Your task to perform on an android device: Open display settings Image 0: 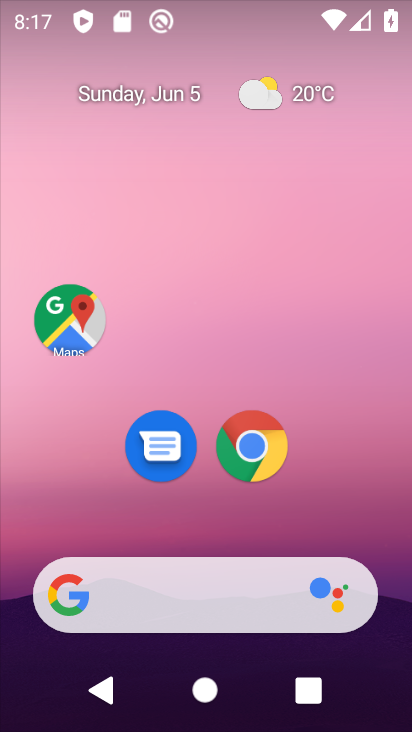
Step 0: drag from (176, 531) to (151, 124)
Your task to perform on an android device: Open display settings Image 1: 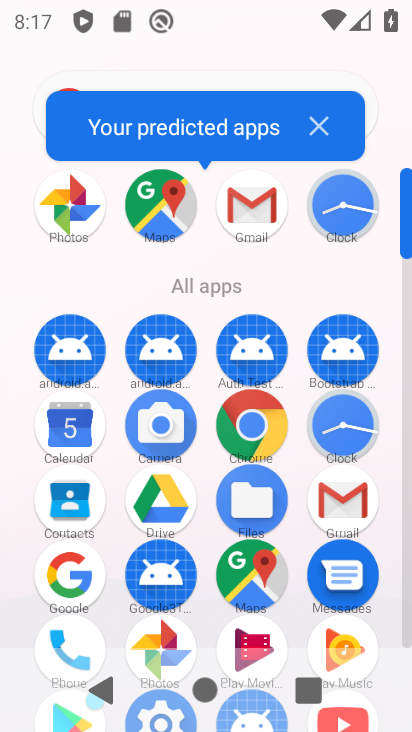
Step 1: drag from (192, 583) to (228, 299)
Your task to perform on an android device: Open display settings Image 2: 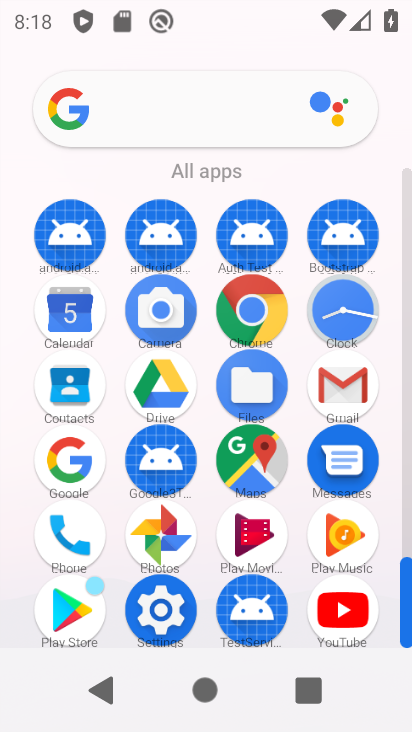
Step 2: click (169, 582)
Your task to perform on an android device: Open display settings Image 3: 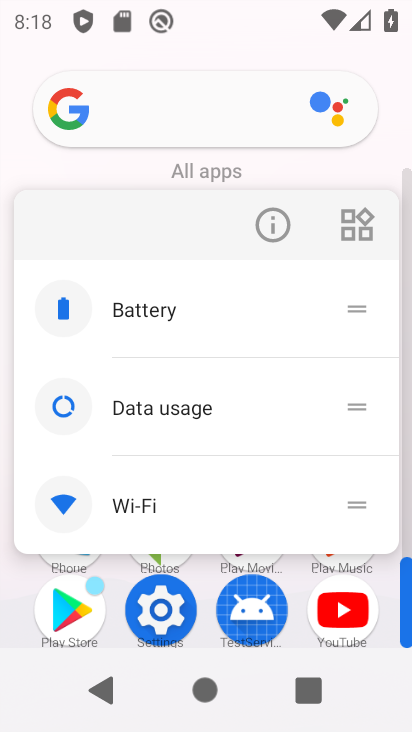
Step 3: click (162, 589)
Your task to perform on an android device: Open display settings Image 4: 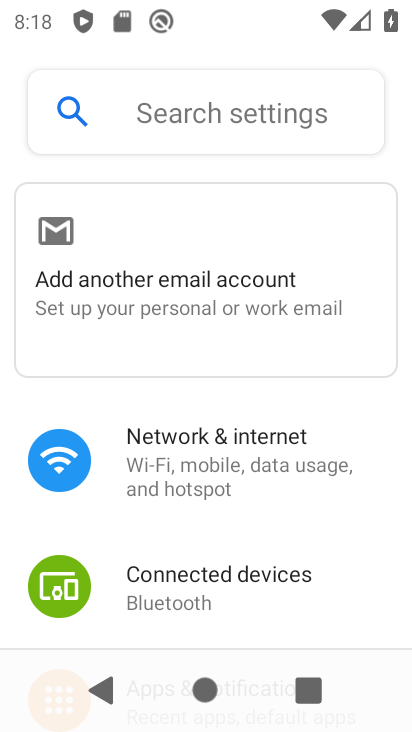
Step 4: drag from (203, 572) to (256, 234)
Your task to perform on an android device: Open display settings Image 5: 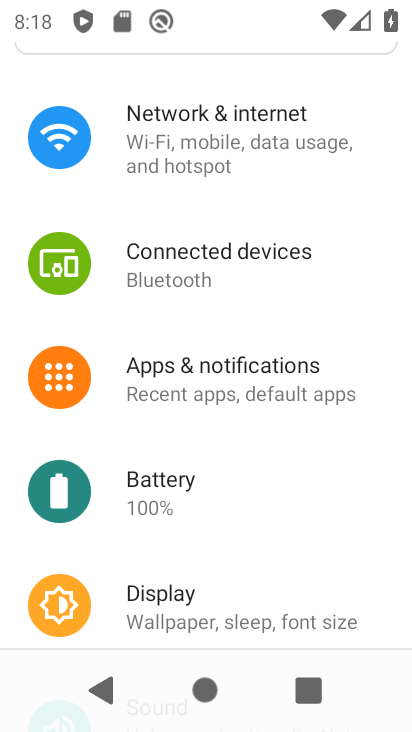
Step 5: drag from (231, 525) to (261, 204)
Your task to perform on an android device: Open display settings Image 6: 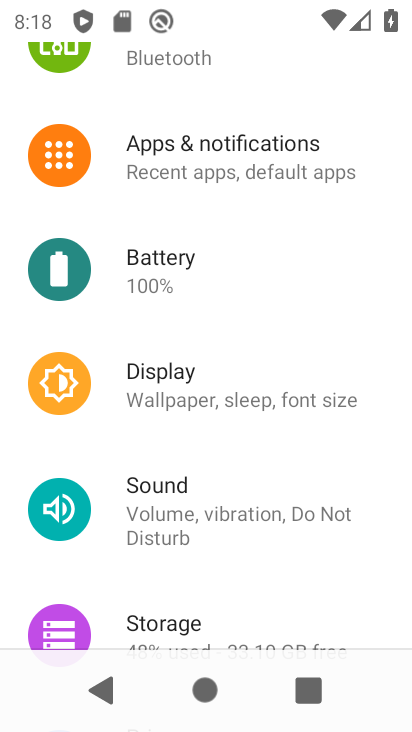
Step 6: click (210, 388)
Your task to perform on an android device: Open display settings Image 7: 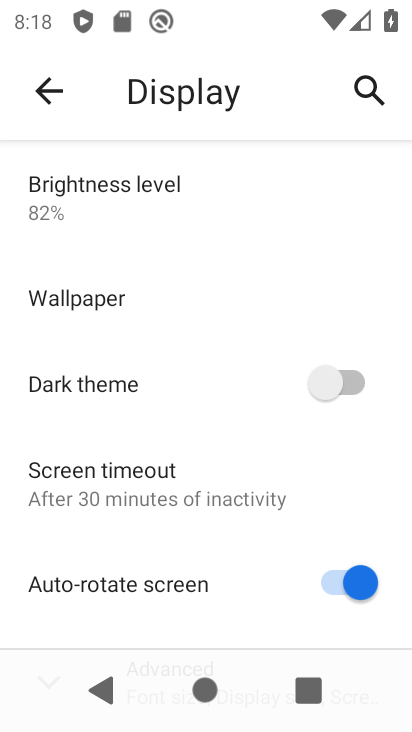
Step 7: task complete